Your task to perform on an android device: change timer sound Image 0: 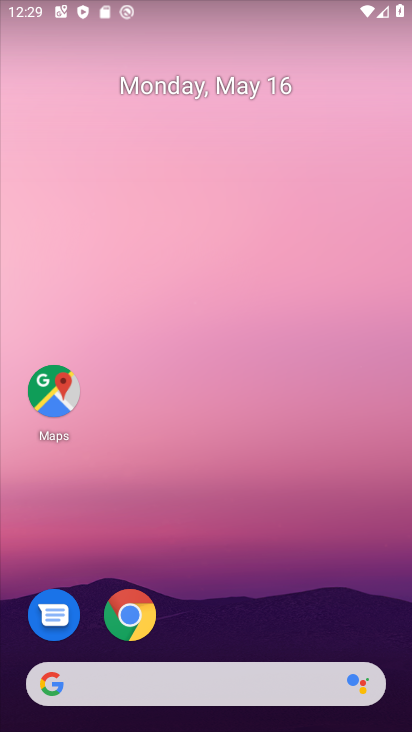
Step 0: drag from (225, 639) to (239, 127)
Your task to perform on an android device: change timer sound Image 1: 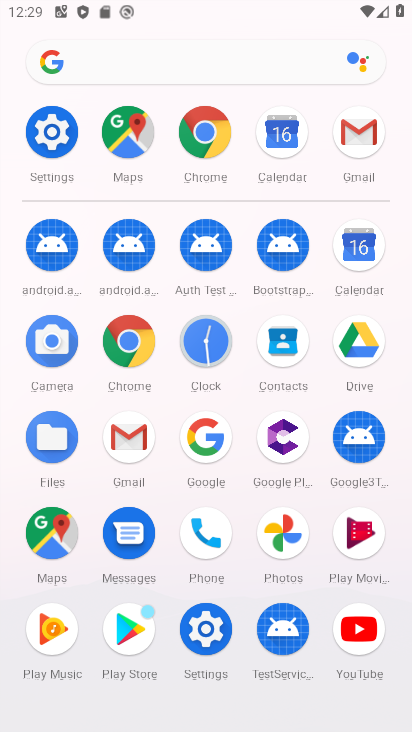
Step 1: click (196, 637)
Your task to perform on an android device: change timer sound Image 2: 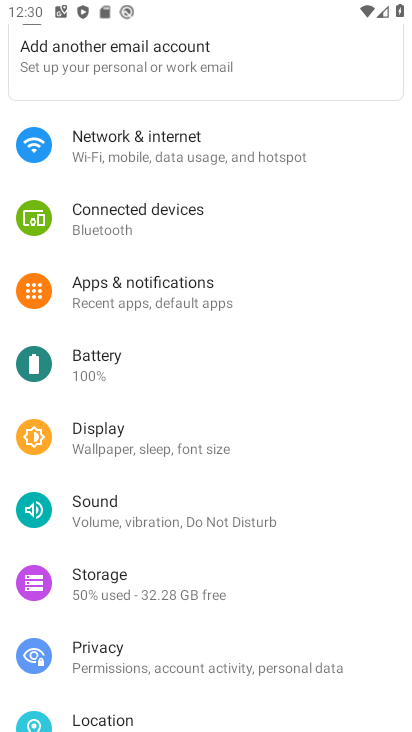
Step 2: press home button
Your task to perform on an android device: change timer sound Image 3: 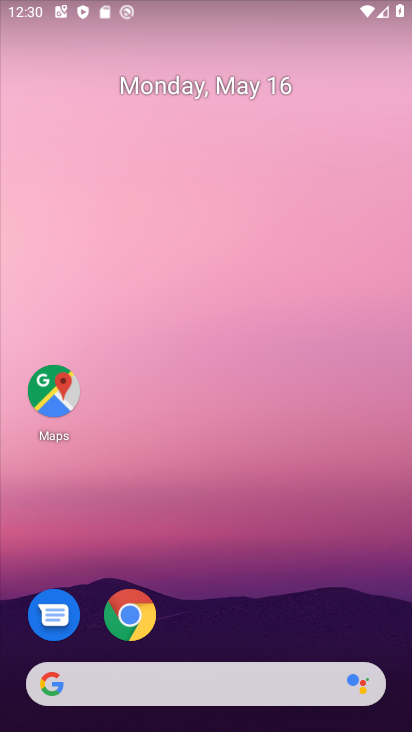
Step 3: drag from (318, 587) to (288, 14)
Your task to perform on an android device: change timer sound Image 4: 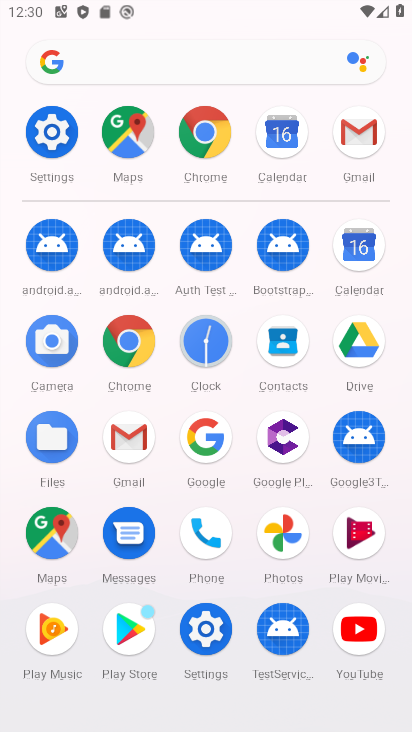
Step 4: click (199, 331)
Your task to perform on an android device: change timer sound Image 5: 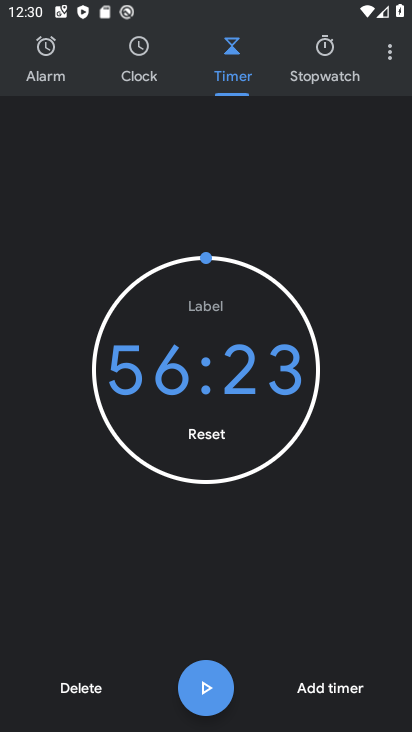
Step 5: click (385, 42)
Your task to perform on an android device: change timer sound Image 6: 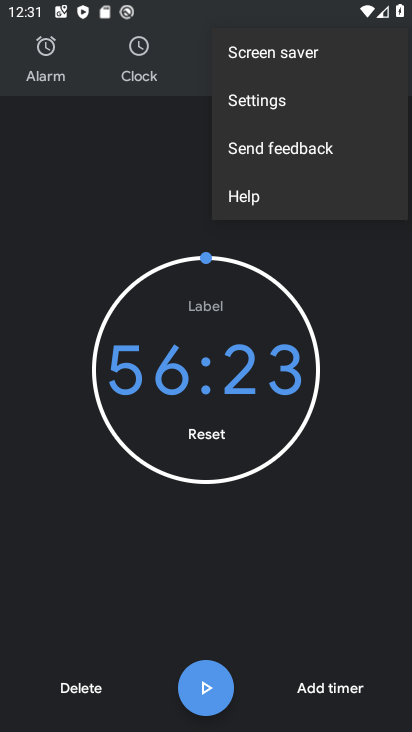
Step 6: click (302, 95)
Your task to perform on an android device: change timer sound Image 7: 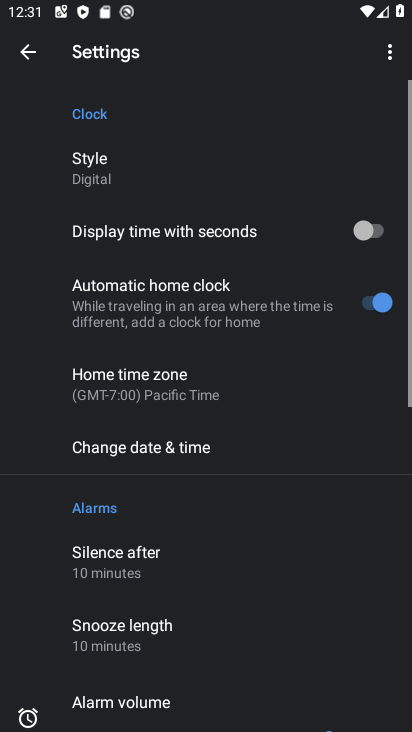
Step 7: drag from (234, 681) to (278, 510)
Your task to perform on an android device: change timer sound Image 8: 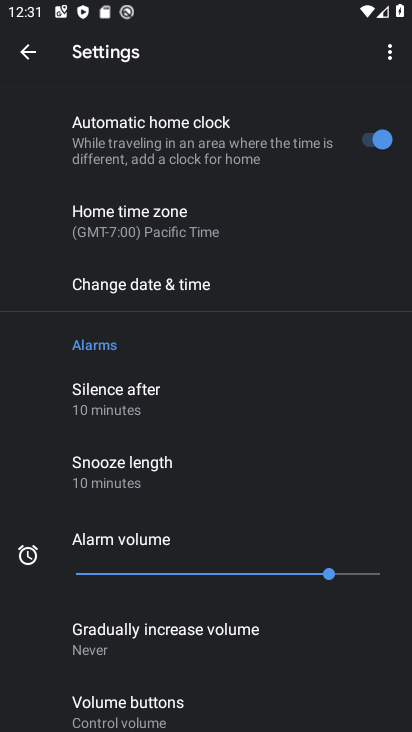
Step 8: drag from (256, 670) to (244, 385)
Your task to perform on an android device: change timer sound Image 9: 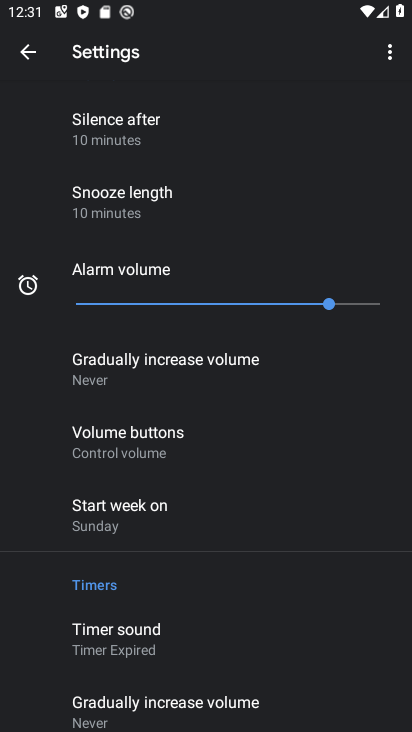
Step 9: click (170, 676)
Your task to perform on an android device: change timer sound Image 10: 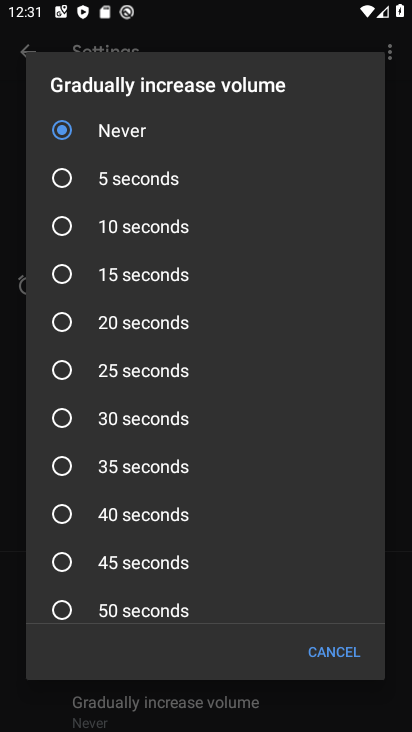
Step 10: click (93, 369)
Your task to perform on an android device: change timer sound Image 11: 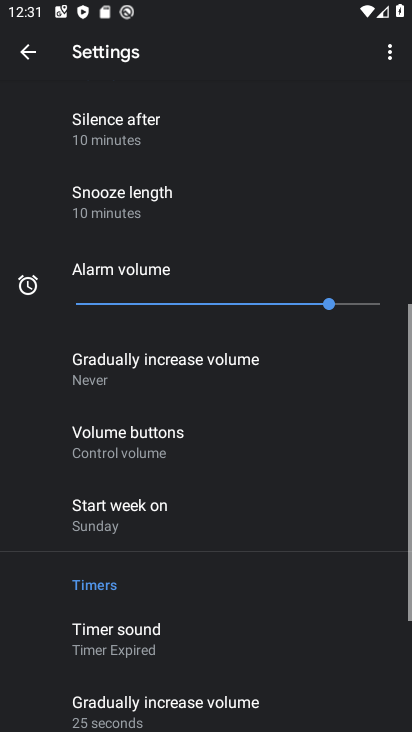
Step 11: task complete